Your task to perform on an android device: Go to display settings Image 0: 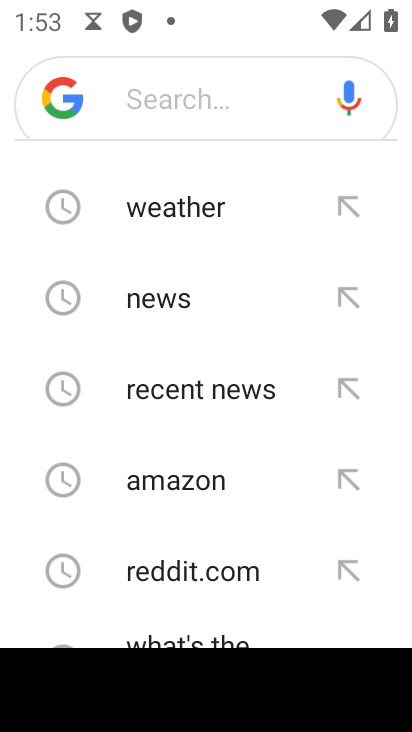
Step 0: press back button
Your task to perform on an android device: Go to display settings Image 1: 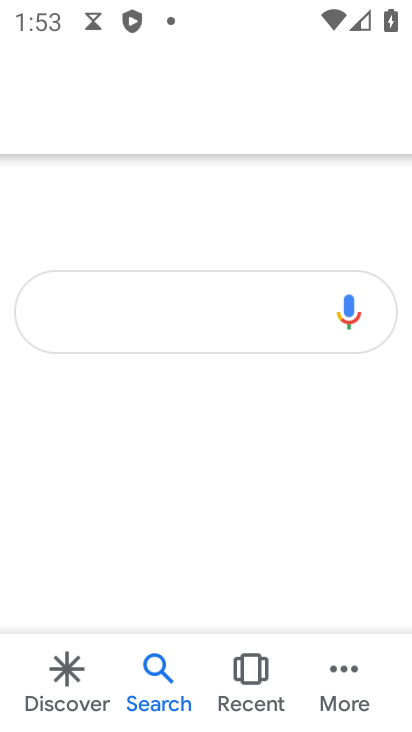
Step 1: press back button
Your task to perform on an android device: Go to display settings Image 2: 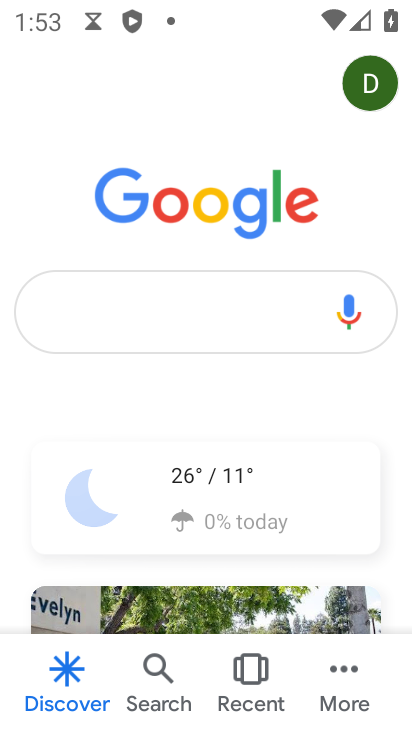
Step 2: press back button
Your task to perform on an android device: Go to display settings Image 3: 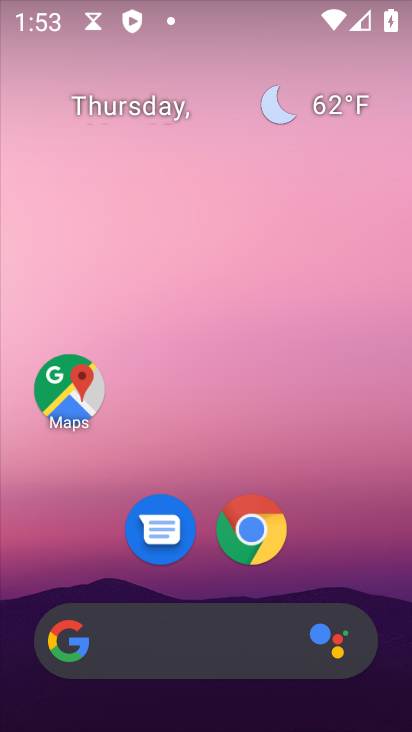
Step 3: drag from (333, 559) to (378, 30)
Your task to perform on an android device: Go to display settings Image 4: 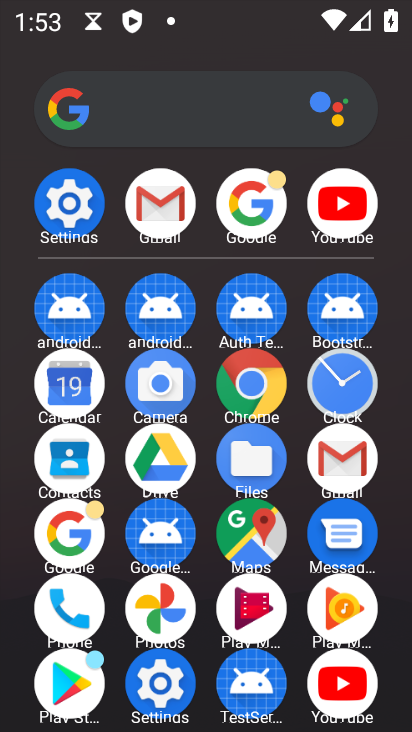
Step 4: click (70, 206)
Your task to perform on an android device: Go to display settings Image 5: 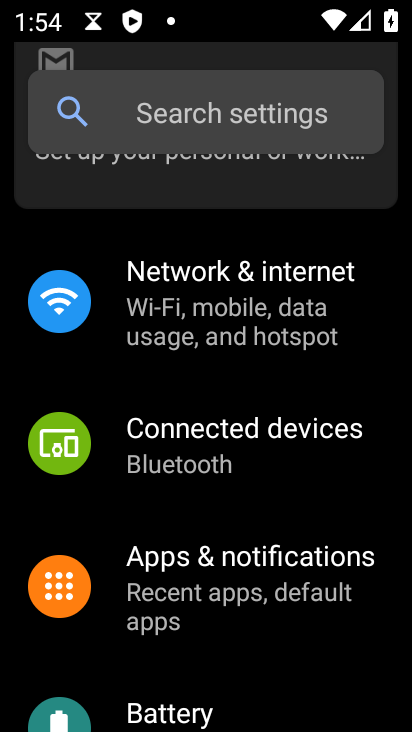
Step 5: drag from (176, 511) to (206, 387)
Your task to perform on an android device: Go to display settings Image 6: 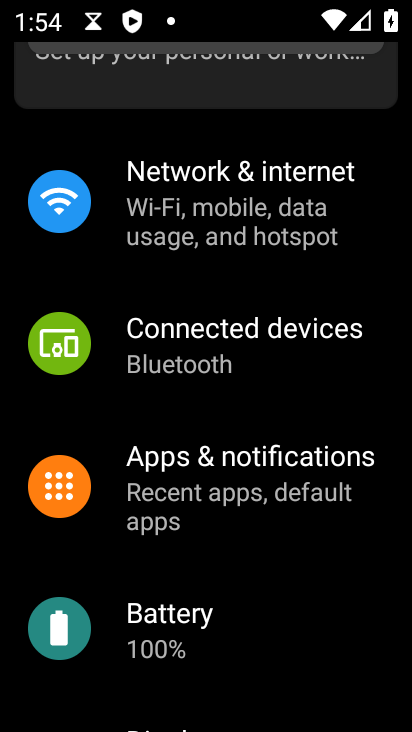
Step 6: drag from (153, 562) to (252, 386)
Your task to perform on an android device: Go to display settings Image 7: 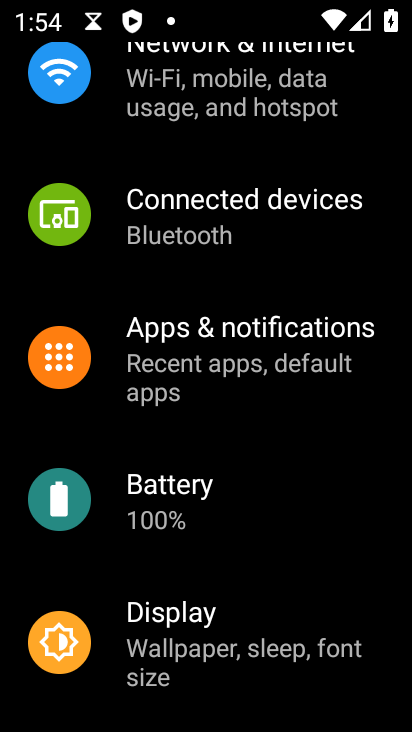
Step 7: click (157, 616)
Your task to perform on an android device: Go to display settings Image 8: 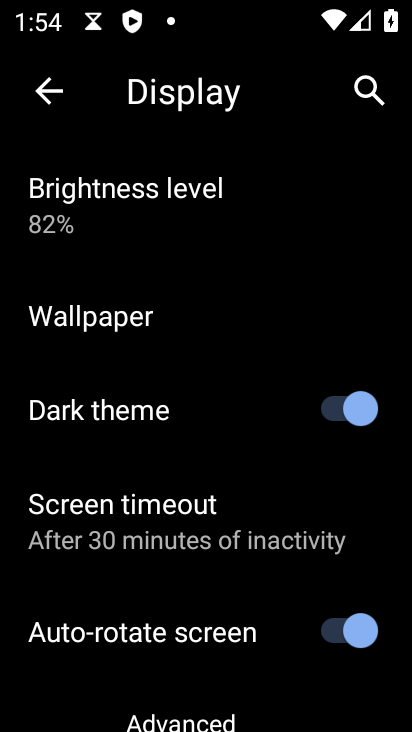
Step 8: task complete